Your task to perform on an android device: Open Google Image 0: 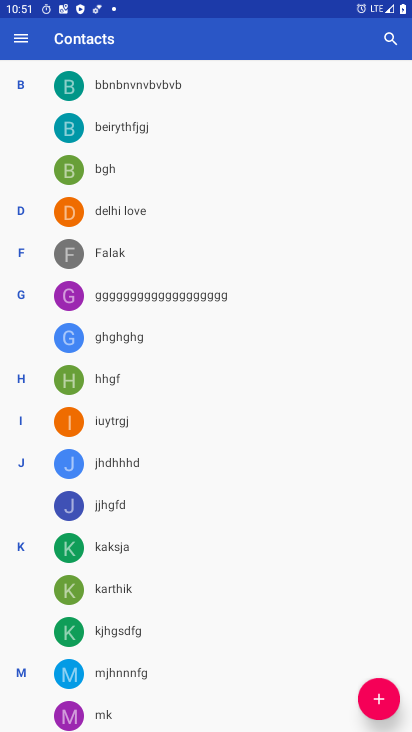
Step 0: press home button
Your task to perform on an android device: Open Google Image 1: 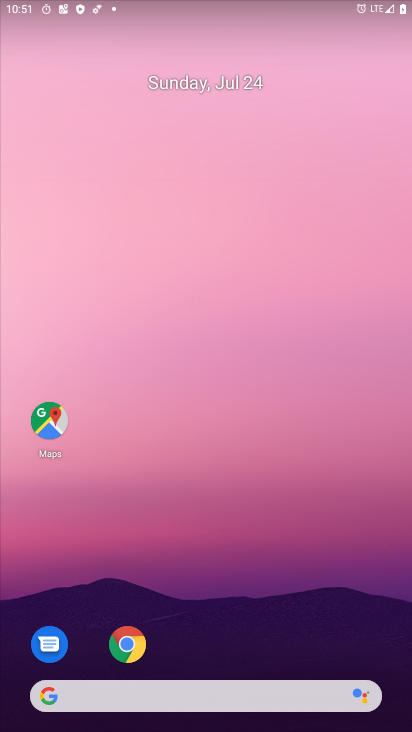
Step 1: drag from (201, 672) to (211, 250)
Your task to perform on an android device: Open Google Image 2: 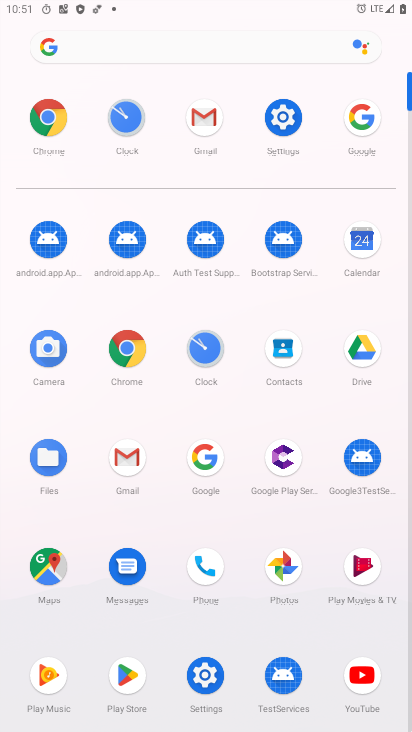
Step 2: click (199, 459)
Your task to perform on an android device: Open Google Image 3: 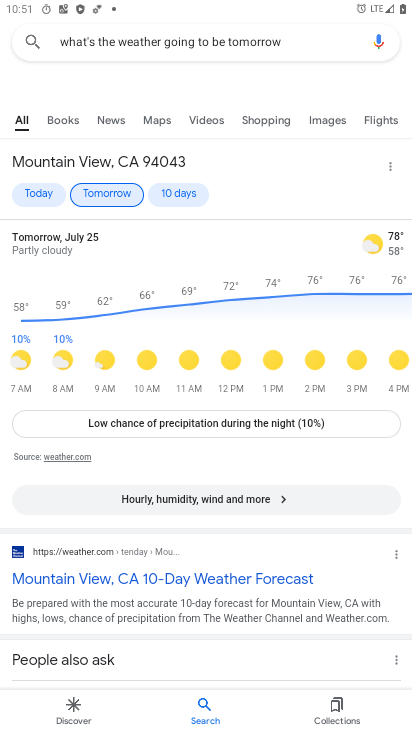
Step 3: drag from (303, 43) to (220, 43)
Your task to perform on an android device: Open Google Image 4: 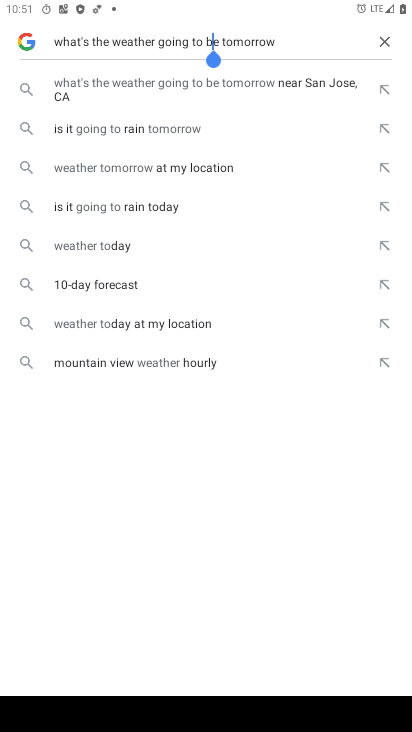
Step 4: click (375, 50)
Your task to perform on an android device: Open Google Image 5: 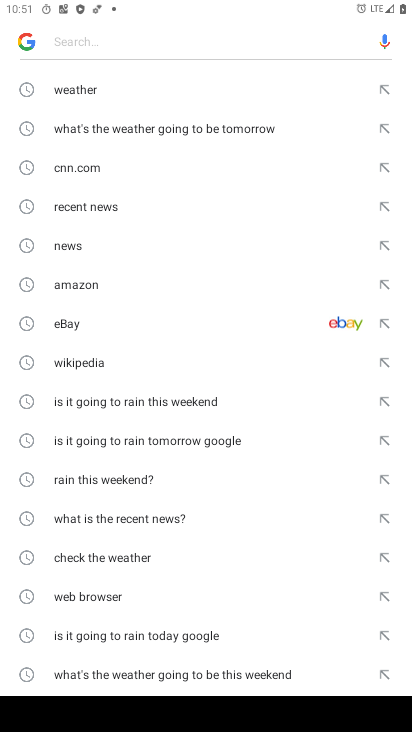
Step 5: task complete